Your task to perform on an android device: Is it going to rain today? Image 0: 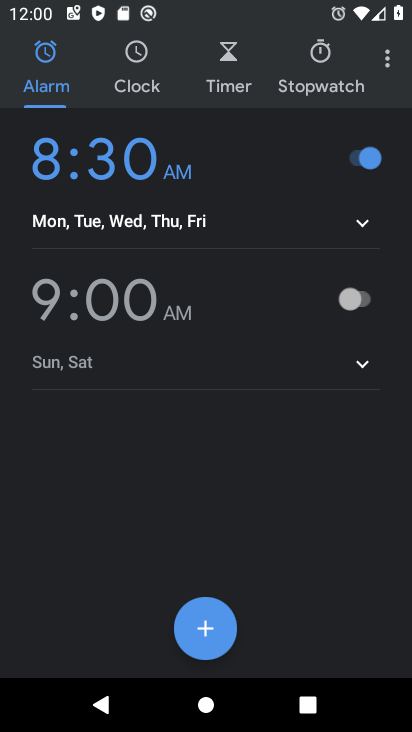
Step 0: drag from (237, 554) to (285, 297)
Your task to perform on an android device: Is it going to rain today? Image 1: 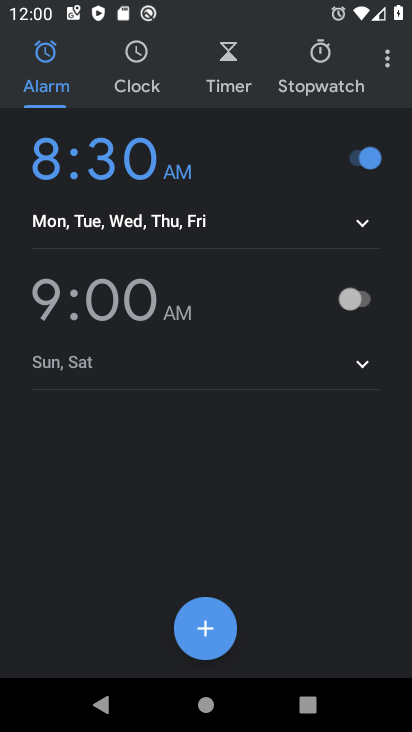
Step 1: press home button
Your task to perform on an android device: Is it going to rain today? Image 2: 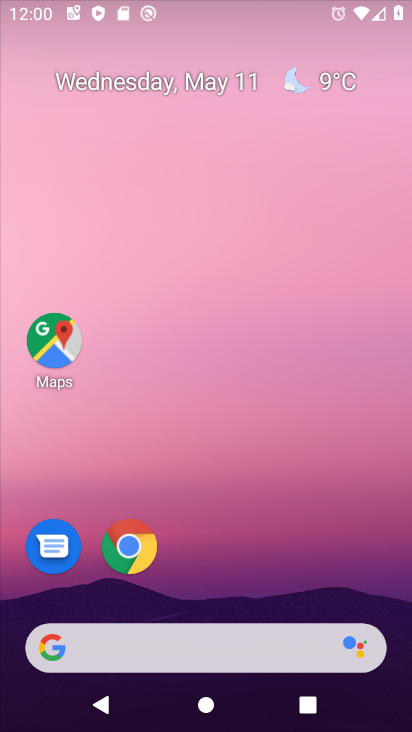
Step 2: click (239, 356)
Your task to perform on an android device: Is it going to rain today? Image 3: 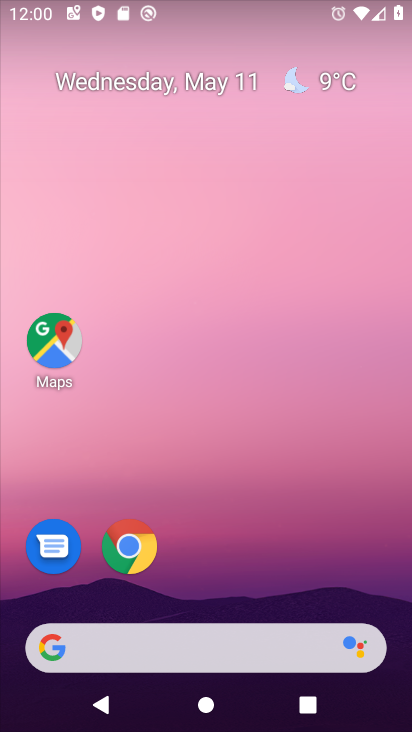
Step 3: drag from (180, 601) to (165, 5)
Your task to perform on an android device: Is it going to rain today? Image 4: 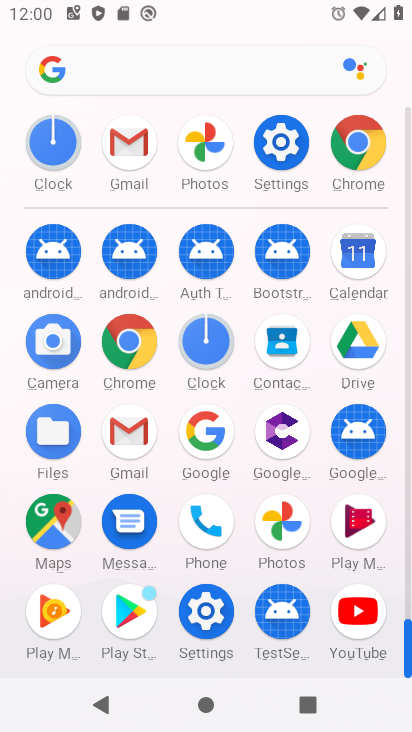
Step 4: click (193, 41)
Your task to perform on an android device: Is it going to rain today? Image 5: 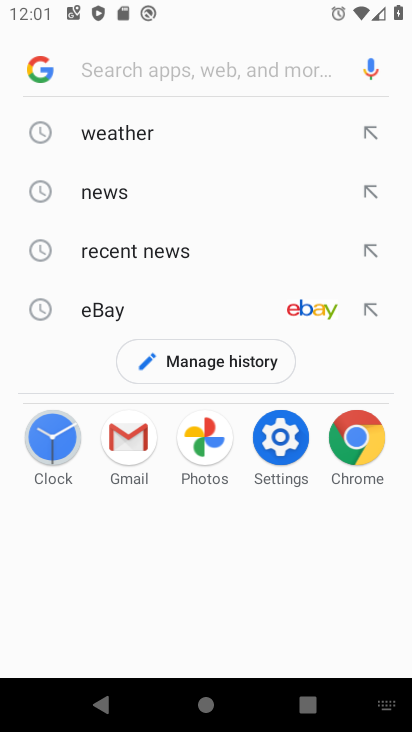
Step 5: type "rain today"
Your task to perform on an android device: Is it going to rain today? Image 6: 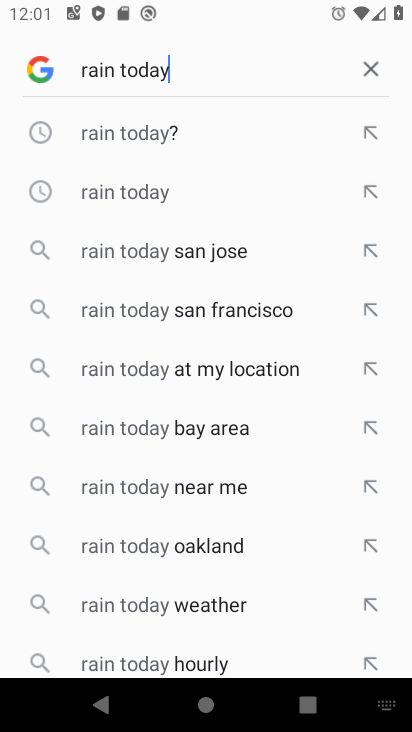
Step 6: click (131, 135)
Your task to perform on an android device: Is it going to rain today? Image 7: 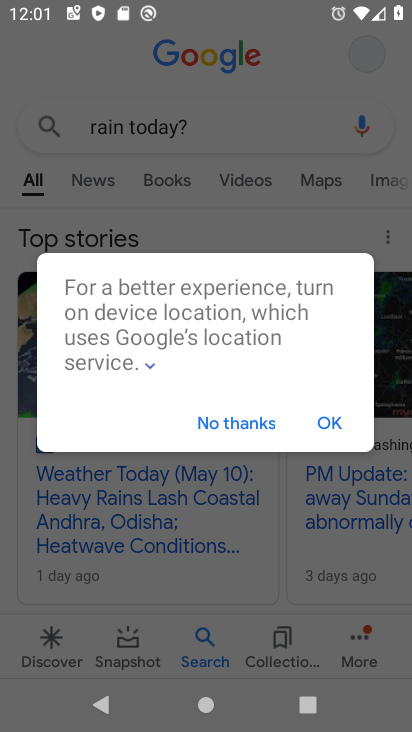
Step 7: drag from (184, 579) to (252, 186)
Your task to perform on an android device: Is it going to rain today? Image 8: 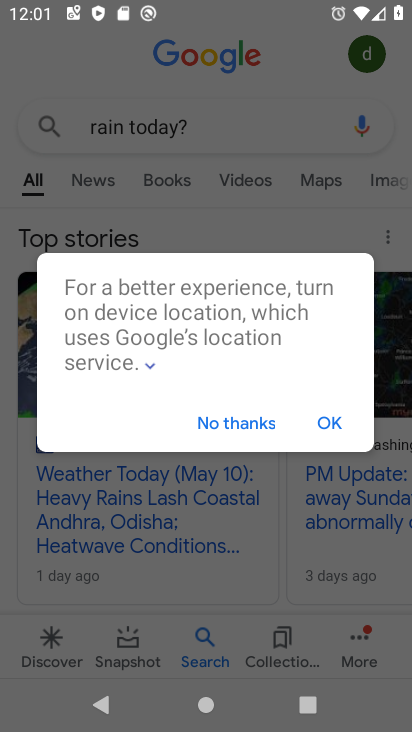
Step 8: click (330, 419)
Your task to perform on an android device: Is it going to rain today? Image 9: 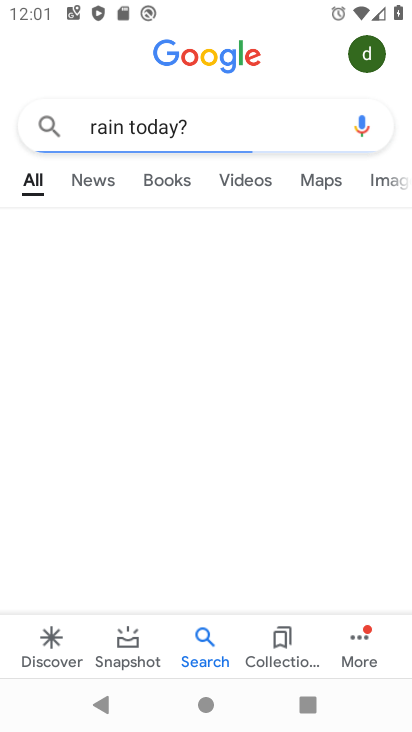
Step 9: task complete